Your task to perform on an android device: change the clock display to show seconds Image 0: 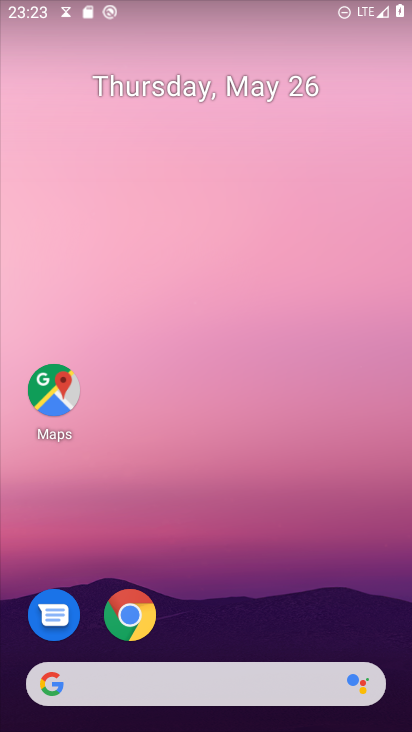
Step 0: drag from (205, 595) to (204, 125)
Your task to perform on an android device: change the clock display to show seconds Image 1: 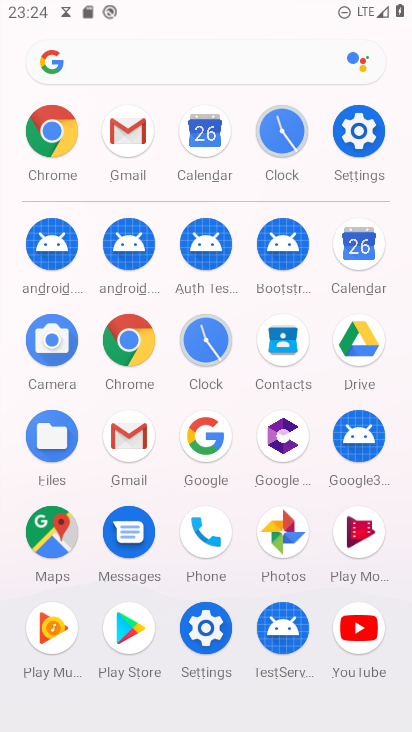
Step 1: click (211, 329)
Your task to perform on an android device: change the clock display to show seconds Image 2: 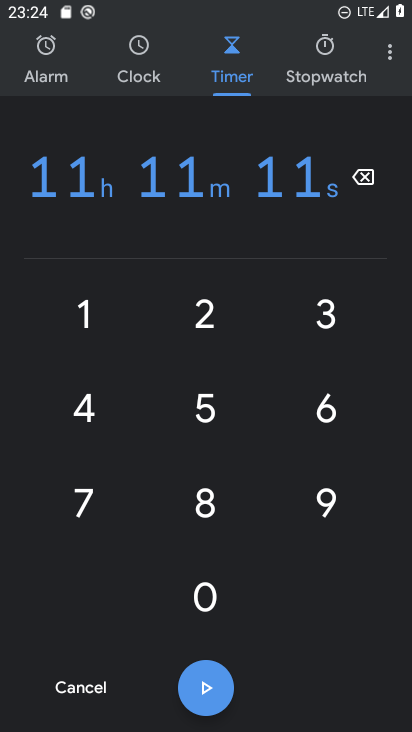
Step 2: click (384, 50)
Your task to perform on an android device: change the clock display to show seconds Image 3: 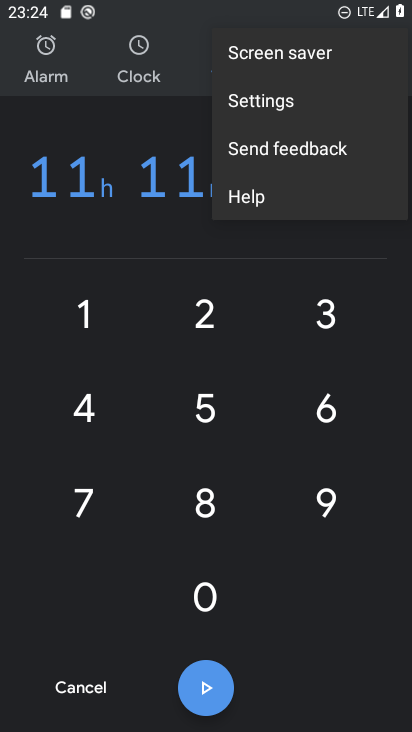
Step 3: click (252, 103)
Your task to perform on an android device: change the clock display to show seconds Image 4: 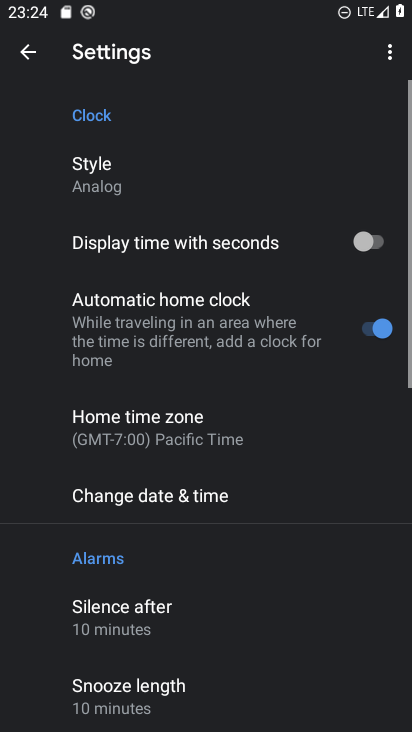
Step 4: click (363, 230)
Your task to perform on an android device: change the clock display to show seconds Image 5: 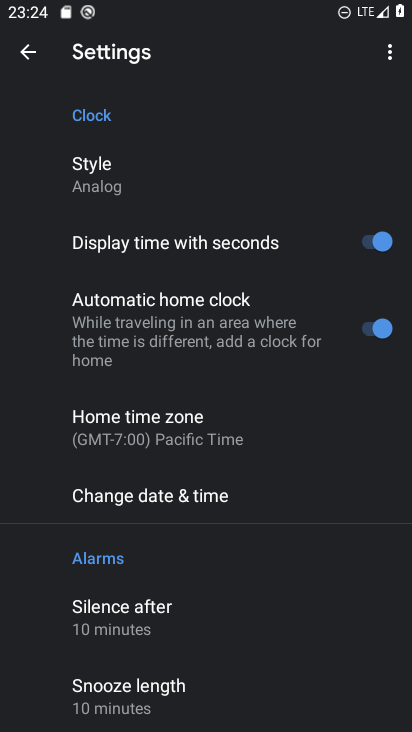
Step 5: task complete